Your task to perform on an android device: make emails show in primary in the gmail app Image 0: 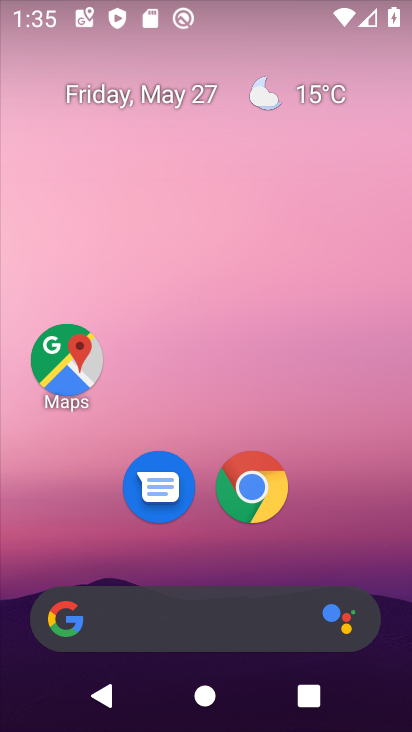
Step 0: drag from (211, 555) to (226, 199)
Your task to perform on an android device: make emails show in primary in the gmail app Image 1: 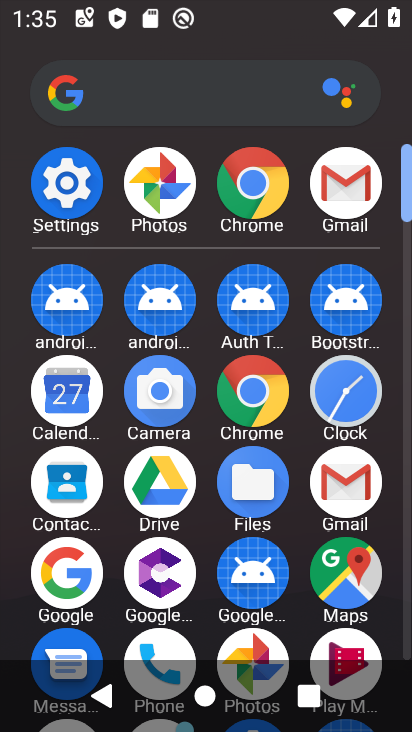
Step 1: click (331, 164)
Your task to perform on an android device: make emails show in primary in the gmail app Image 2: 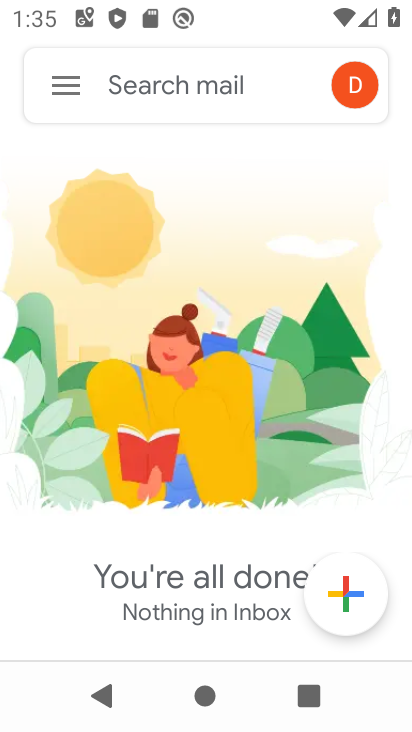
Step 2: click (52, 75)
Your task to perform on an android device: make emails show in primary in the gmail app Image 3: 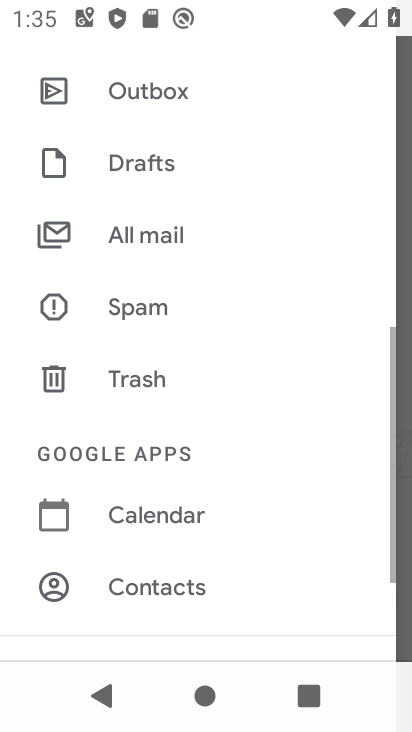
Step 3: click (52, 75)
Your task to perform on an android device: make emails show in primary in the gmail app Image 4: 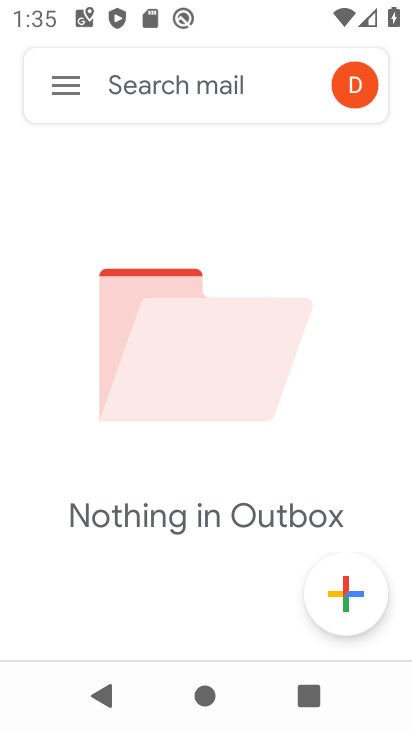
Step 4: click (52, 75)
Your task to perform on an android device: make emails show in primary in the gmail app Image 5: 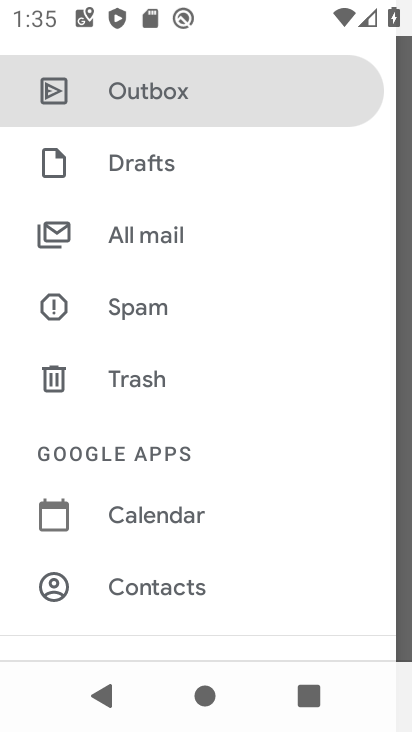
Step 5: task complete